Your task to perform on an android device: change alarm snooze length Image 0: 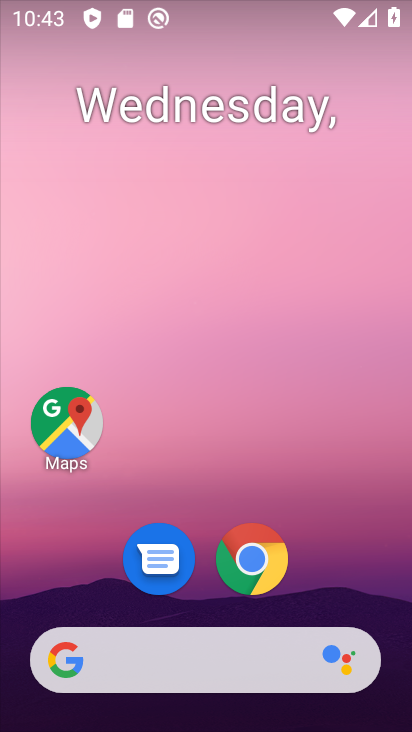
Step 0: drag from (352, 539) to (273, 22)
Your task to perform on an android device: change alarm snooze length Image 1: 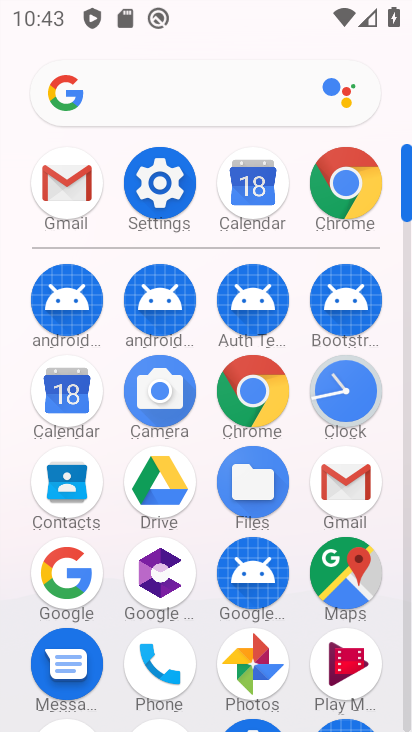
Step 1: click (345, 393)
Your task to perform on an android device: change alarm snooze length Image 2: 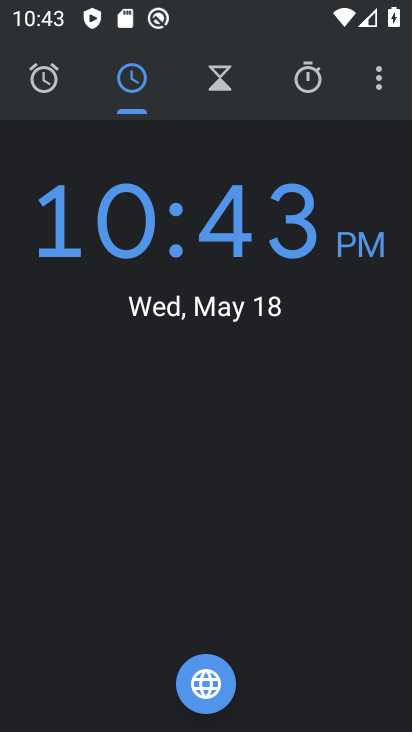
Step 2: click (322, 88)
Your task to perform on an android device: change alarm snooze length Image 3: 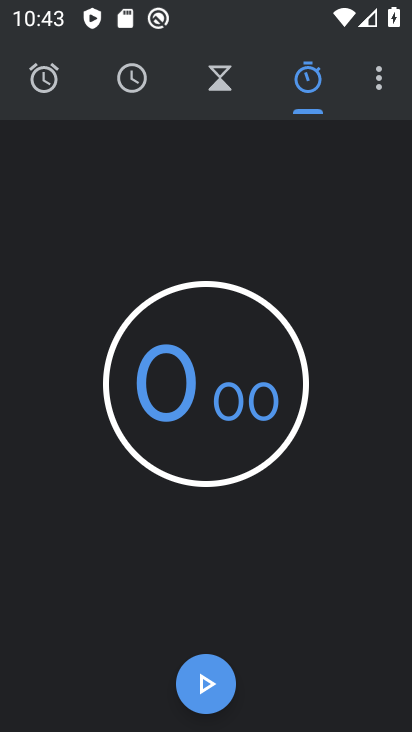
Step 3: click (387, 86)
Your task to perform on an android device: change alarm snooze length Image 4: 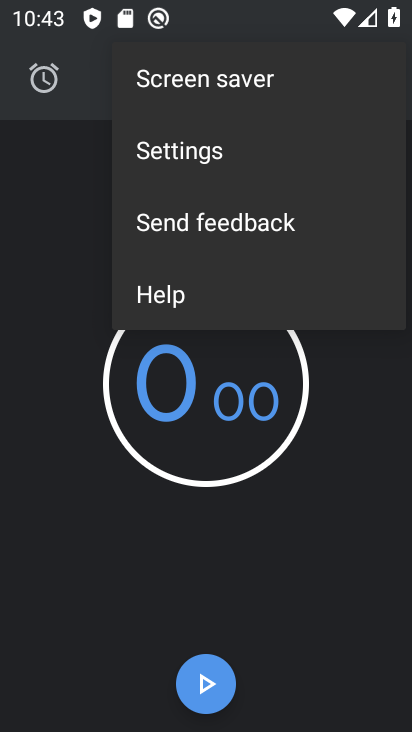
Step 4: click (191, 136)
Your task to perform on an android device: change alarm snooze length Image 5: 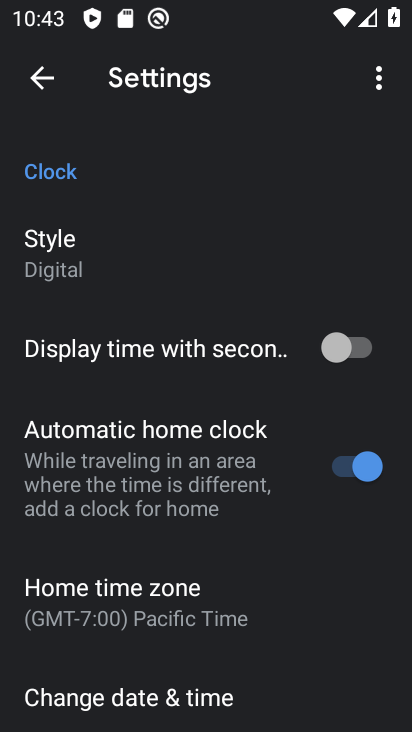
Step 5: drag from (191, 607) to (156, 174)
Your task to perform on an android device: change alarm snooze length Image 6: 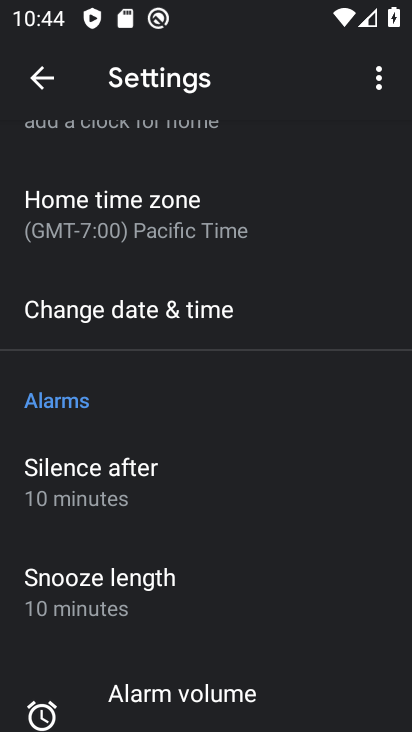
Step 6: click (134, 595)
Your task to perform on an android device: change alarm snooze length Image 7: 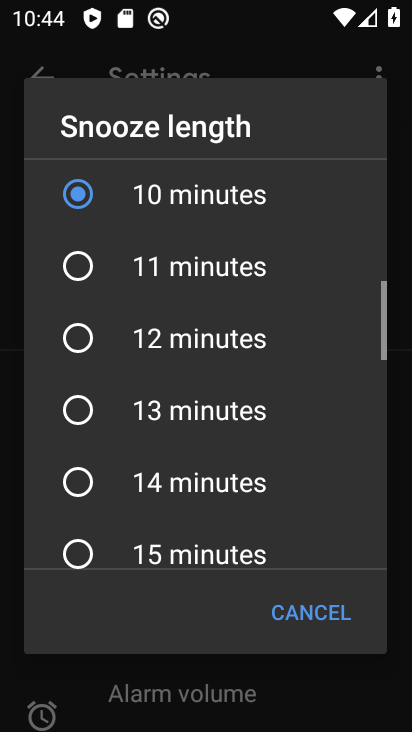
Step 7: click (76, 392)
Your task to perform on an android device: change alarm snooze length Image 8: 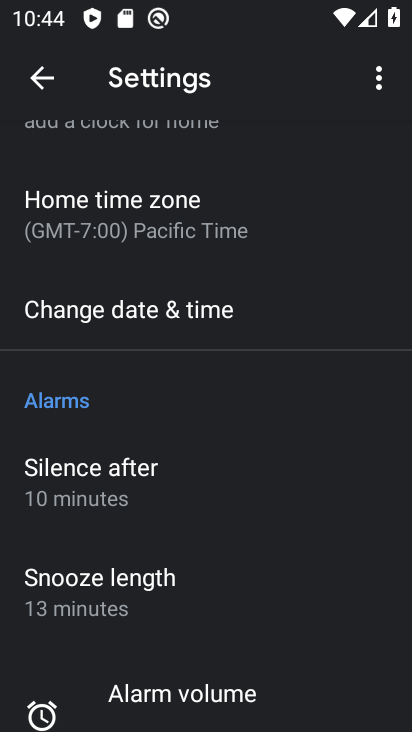
Step 8: task complete